Your task to perform on an android device: Search for vegetarian restaurants on Maps Image 0: 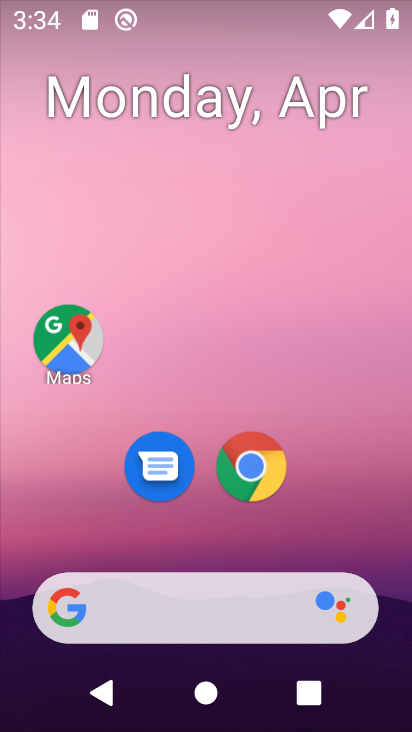
Step 0: click (91, 353)
Your task to perform on an android device: Search for vegetarian restaurants on Maps Image 1: 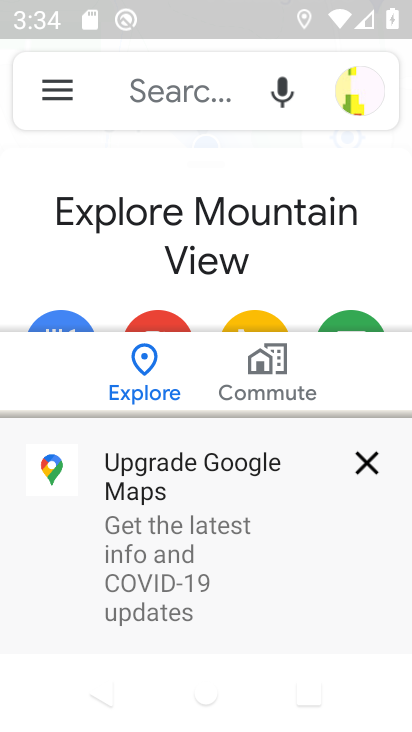
Step 1: click (187, 80)
Your task to perform on an android device: Search for vegetarian restaurants on Maps Image 2: 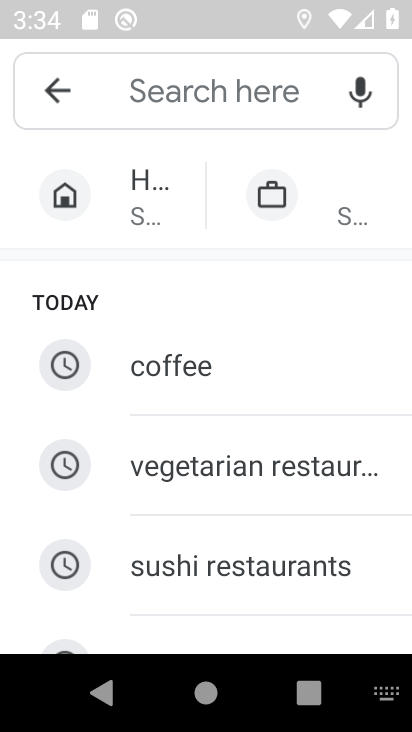
Step 2: click (252, 477)
Your task to perform on an android device: Search for vegetarian restaurants on Maps Image 3: 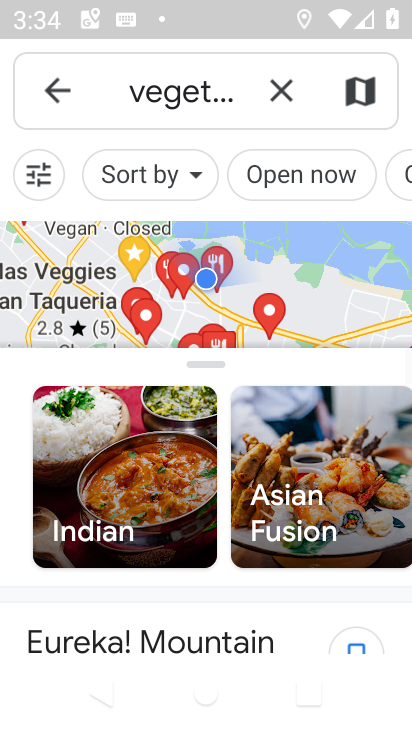
Step 3: task complete